Your task to perform on an android device: change the clock display to digital Image 0: 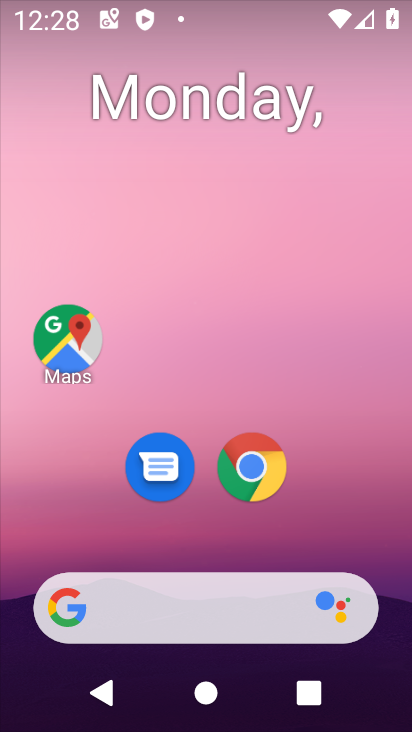
Step 0: drag from (389, 535) to (388, 100)
Your task to perform on an android device: change the clock display to digital Image 1: 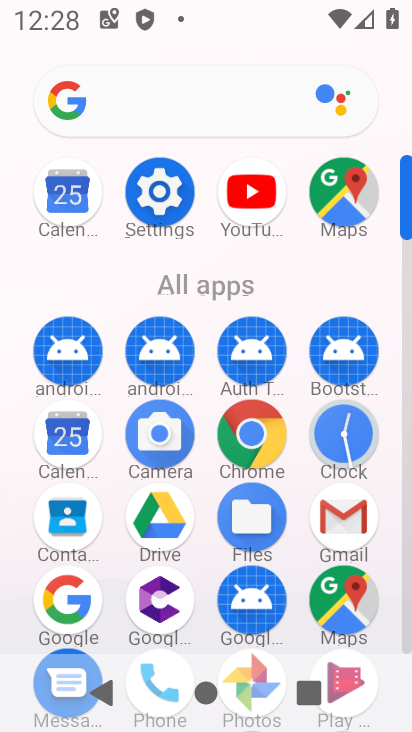
Step 1: click (406, 640)
Your task to perform on an android device: change the clock display to digital Image 2: 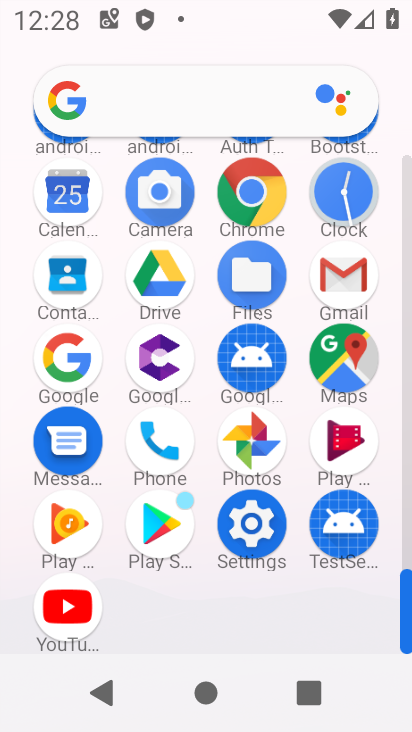
Step 2: click (339, 189)
Your task to perform on an android device: change the clock display to digital Image 3: 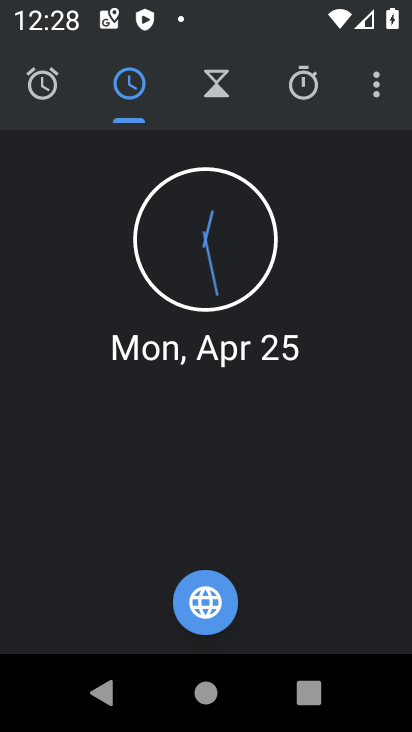
Step 3: click (376, 91)
Your task to perform on an android device: change the clock display to digital Image 4: 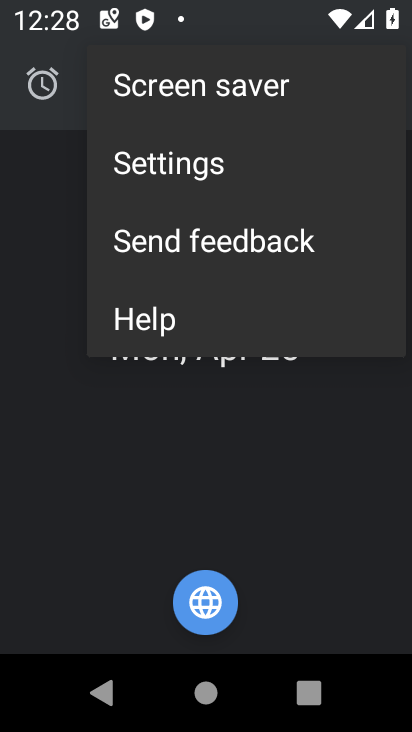
Step 4: click (155, 155)
Your task to perform on an android device: change the clock display to digital Image 5: 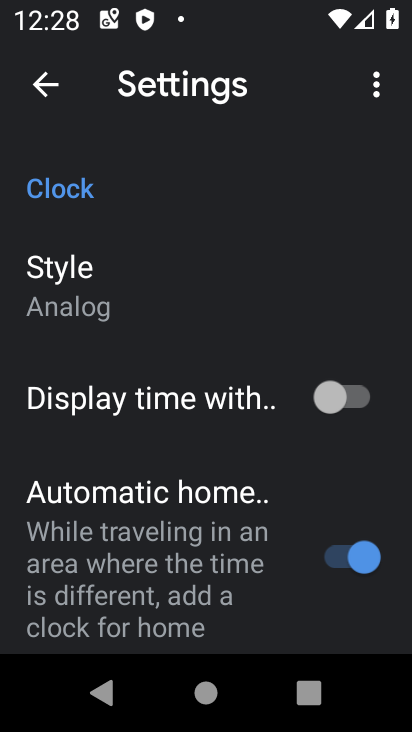
Step 5: click (75, 285)
Your task to perform on an android device: change the clock display to digital Image 6: 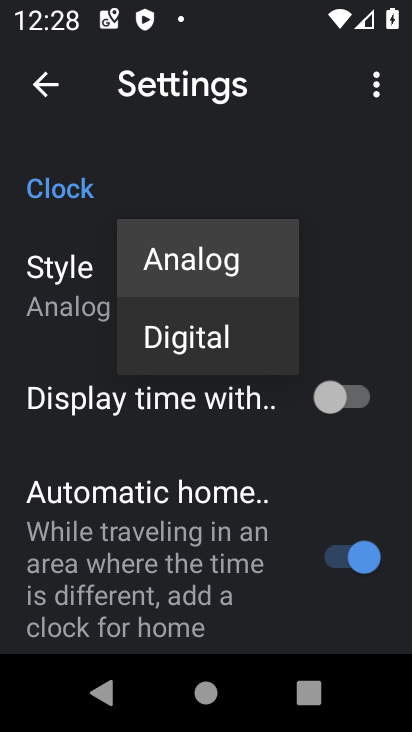
Step 6: click (184, 340)
Your task to perform on an android device: change the clock display to digital Image 7: 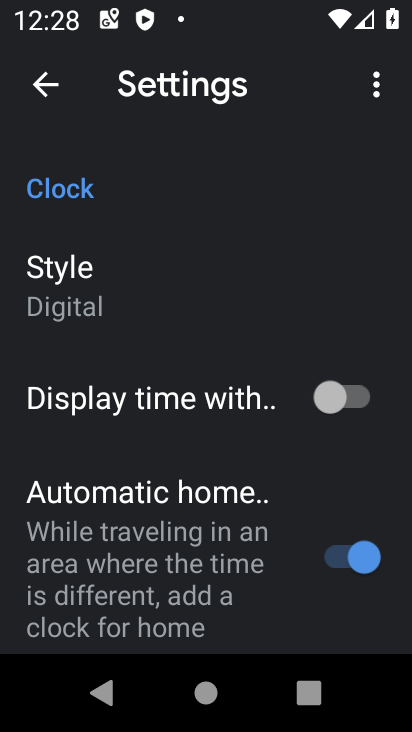
Step 7: task complete